Your task to perform on an android device: What's the news in Sri Lanka? Image 0: 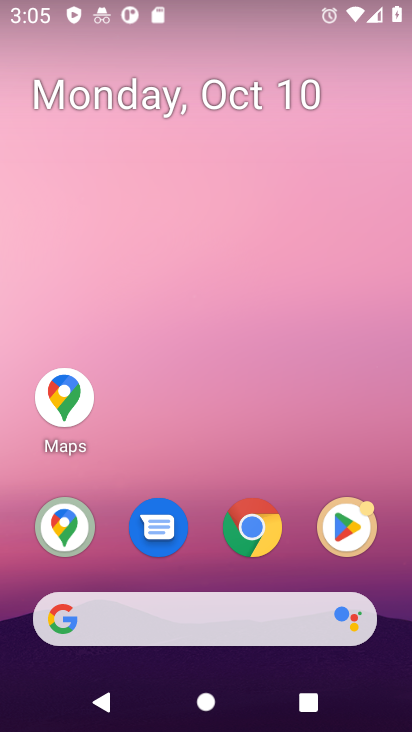
Step 0: click (254, 526)
Your task to perform on an android device: What's the news in Sri Lanka? Image 1: 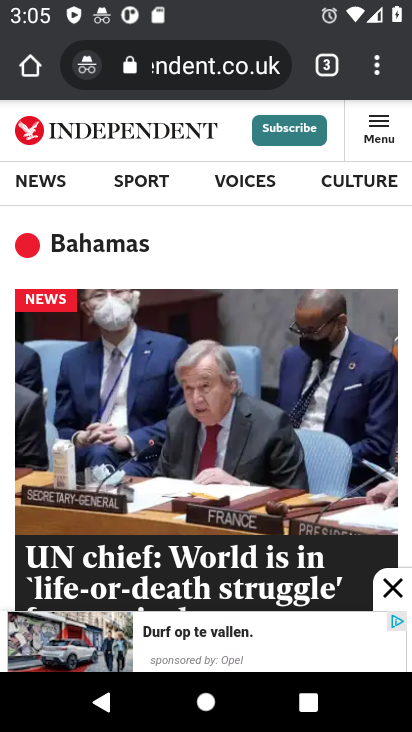
Step 1: click (236, 73)
Your task to perform on an android device: What's the news in Sri Lanka? Image 2: 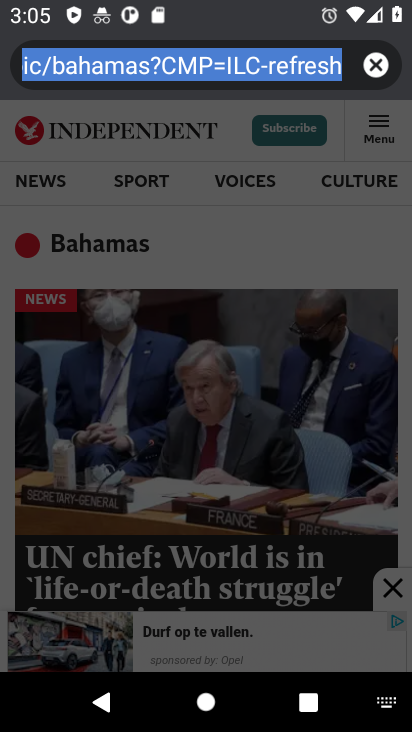
Step 2: click (381, 67)
Your task to perform on an android device: What's the news in Sri Lanka? Image 3: 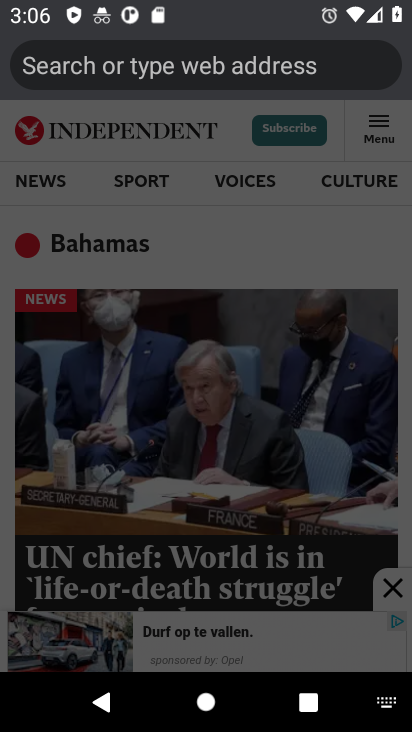
Step 3: type "What's the news in Sri Lanka"
Your task to perform on an android device: What's the news in Sri Lanka? Image 4: 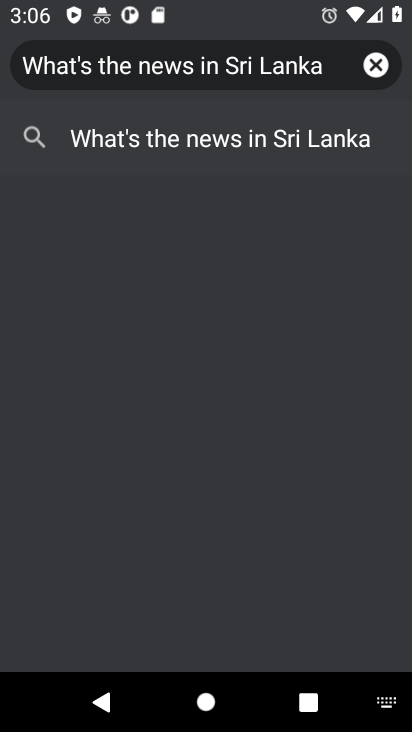
Step 4: click (324, 140)
Your task to perform on an android device: What's the news in Sri Lanka? Image 5: 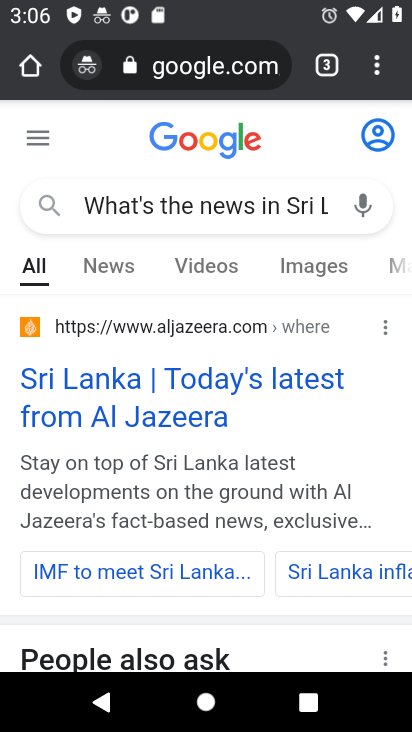
Step 5: click (222, 373)
Your task to perform on an android device: What's the news in Sri Lanka? Image 6: 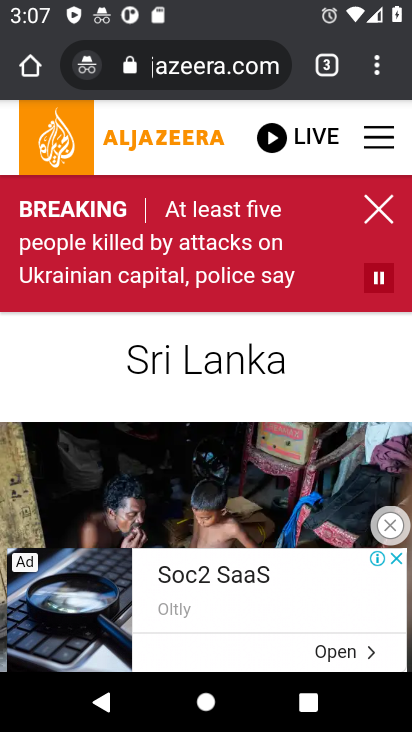
Step 6: task complete